Your task to perform on an android device: What's the weather today? Image 0: 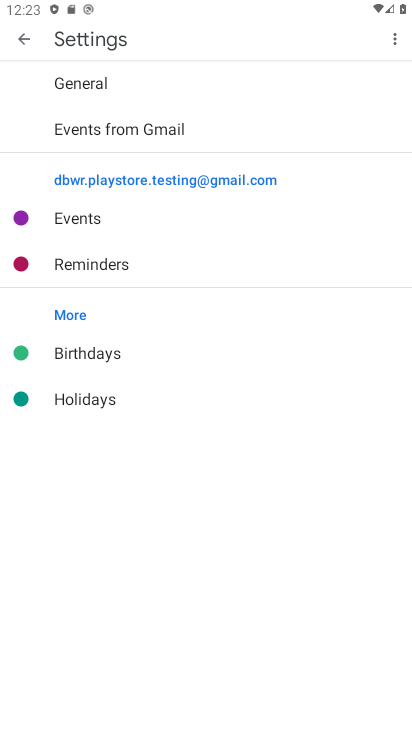
Step 0: press home button
Your task to perform on an android device: What's the weather today? Image 1: 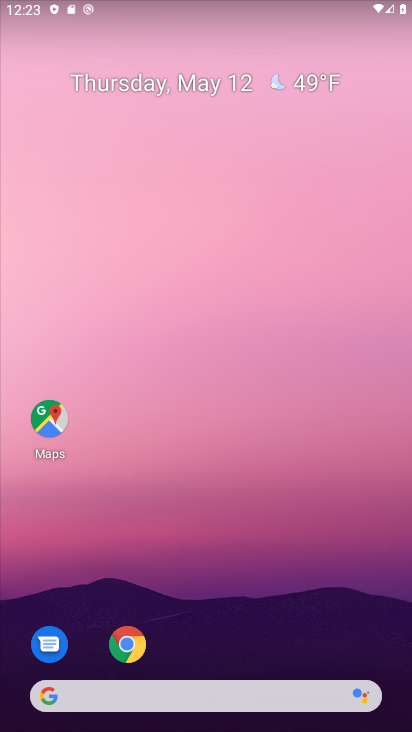
Step 1: click (210, 693)
Your task to perform on an android device: What's the weather today? Image 2: 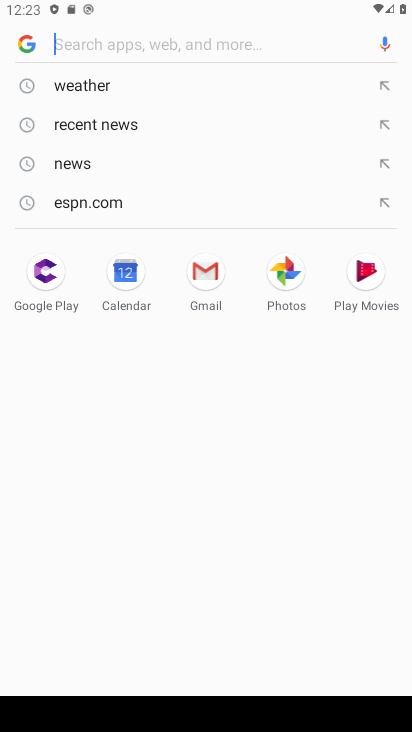
Step 2: click (85, 83)
Your task to perform on an android device: What's the weather today? Image 3: 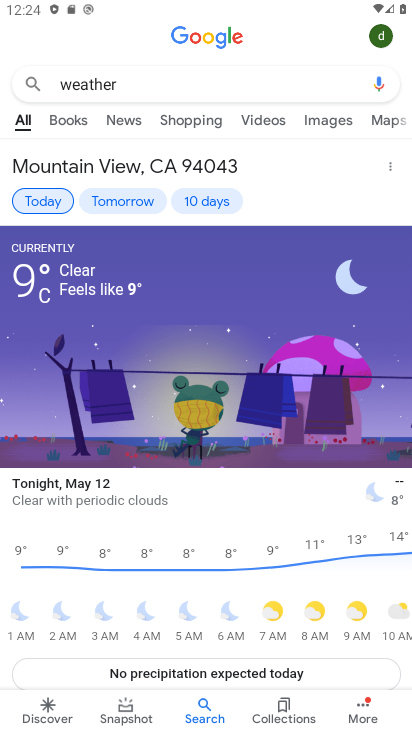
Step 3: task complete